Your task to perform on an android device: Open sound settings Image 0: 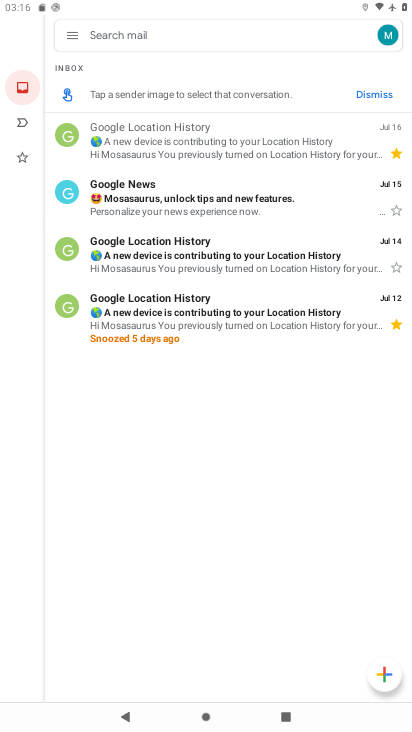
Step 0: press home button
Your task to perform on an android device: Open sound settings Image 1: 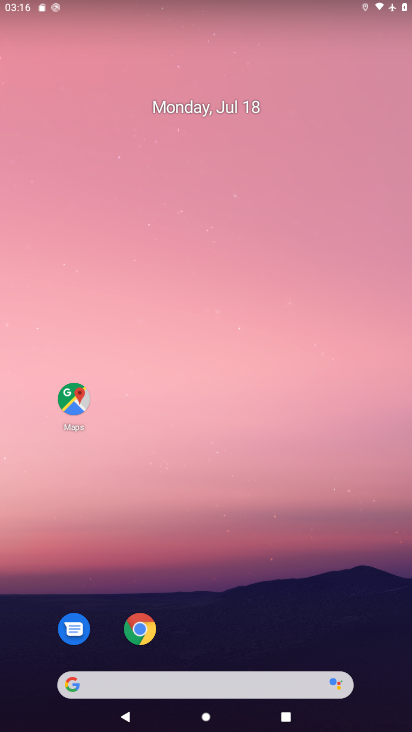
Step 1: drag from (389, 619) to (399, 205)
Your task to perform on an android device: Open sound settings Image 2: 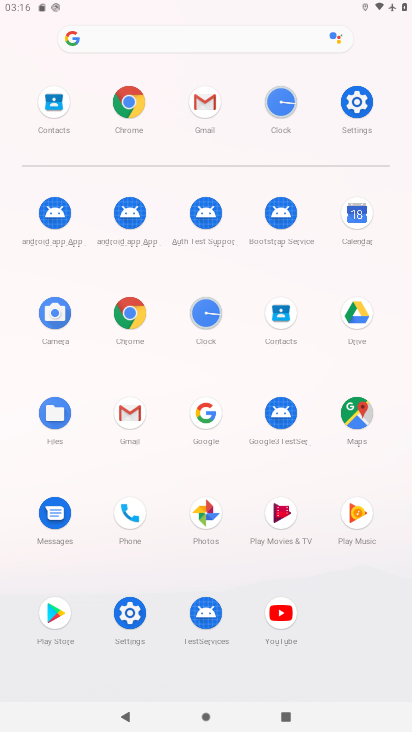
Step 2: click (357, 112)
Your task to perform on an android device: Open sound settings Image 3: 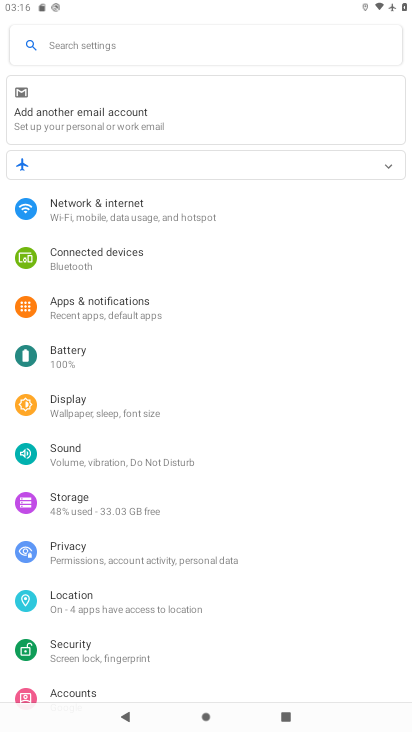
Step 3: drag from (330, 520) to (333, 432)
Your task to perform on an android device: Open sound settings Image 4: 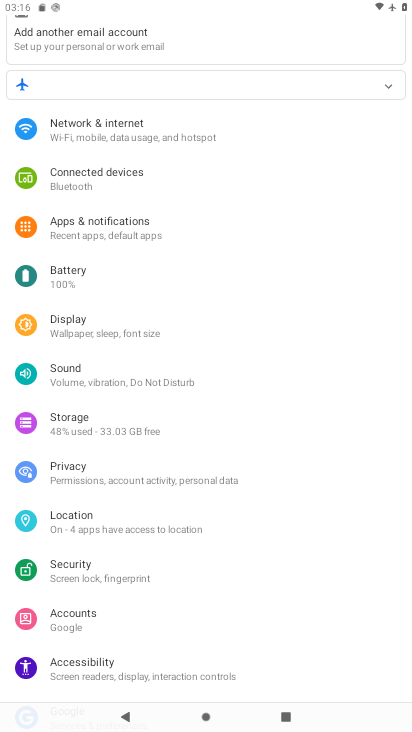
Step 4: drag from (321, 518) to (320, 444)
Your task to perform on an android device: Open sound settings Image 5: 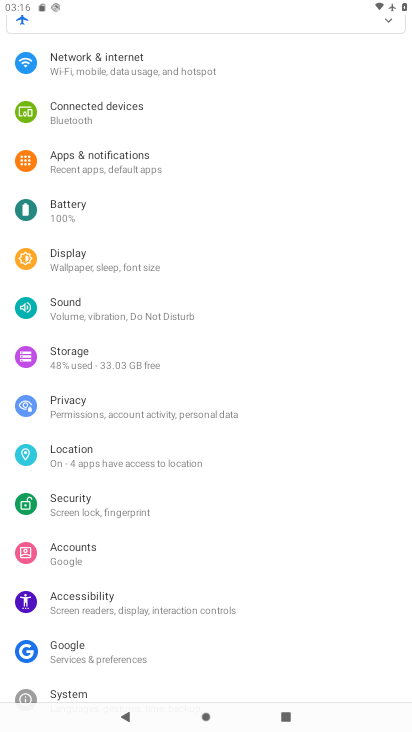
Step 5: drag from (322, 546) to (323, 455)
Your task to perform on an android device: Open sound settings Image 6: 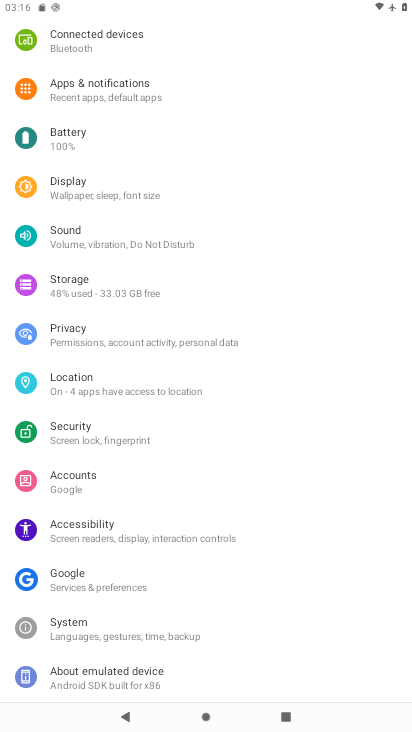
Step 6: drag from (337, 564) to (339, 460)
Your task to perform on an android device: Open sound settings Image 7: 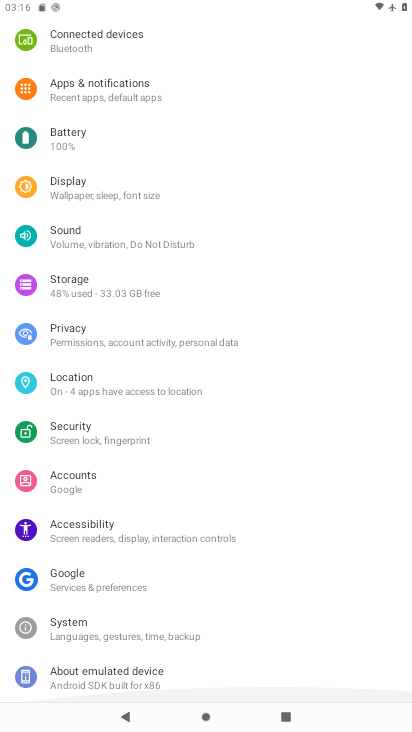
Step 7: drag from (339, 379) to (340, 460)
Your task to perform on an android device: Open sound settings Image 8: 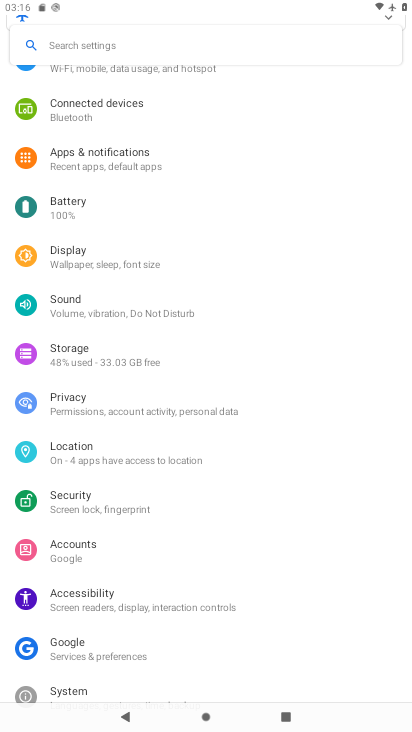
Step 8: drag from (337, 357) to (338, 432)
Your task to perform on an android device: Open sound settings Image 9: 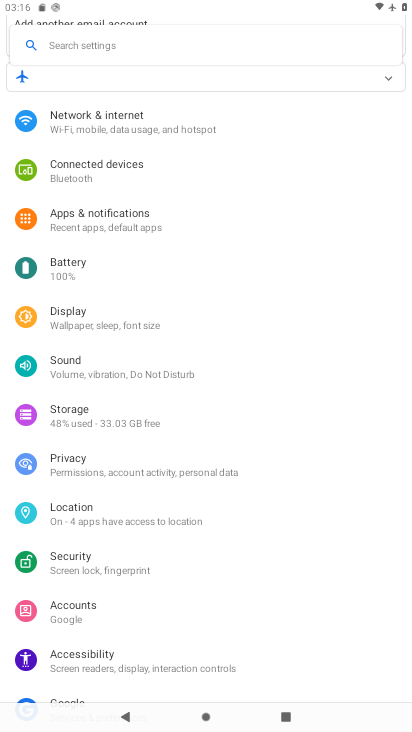
Step 9: drag from (341, 343) to (341, 519)
Your task to perform on an android device: Open sound settings Image 10: 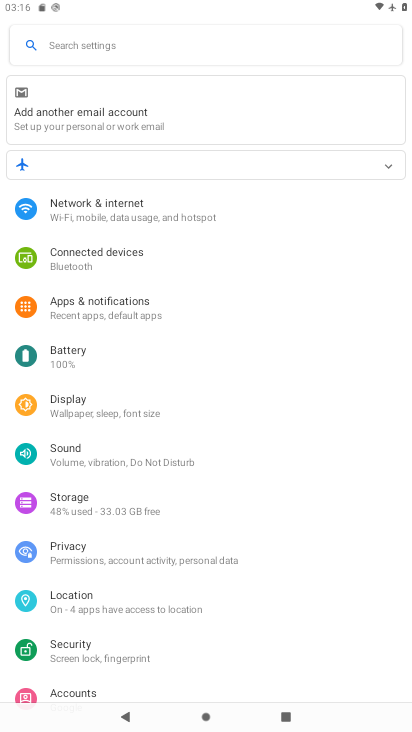
Step 10: click (176, 467)
Your task to perform on an android device: Open sound settings Image 11: 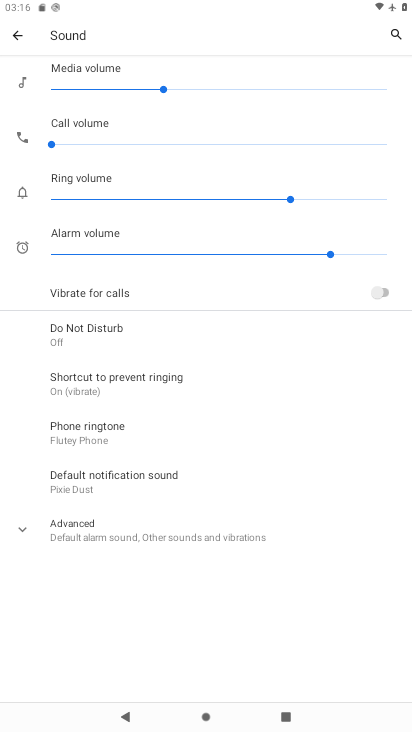
Step 11: click (185, 541)
Your task to perform on an android device: Open sound settings Image 12: 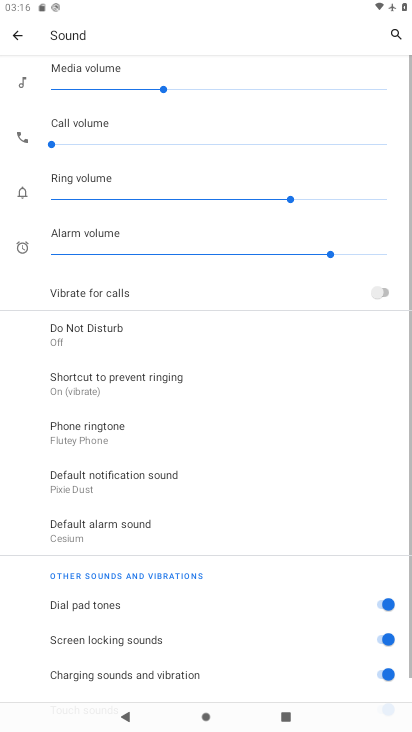
Step 12: task complete